Your task to perform on an android device: open app "ColorNote Notepad Notes" (install if not already installed) Image 0: 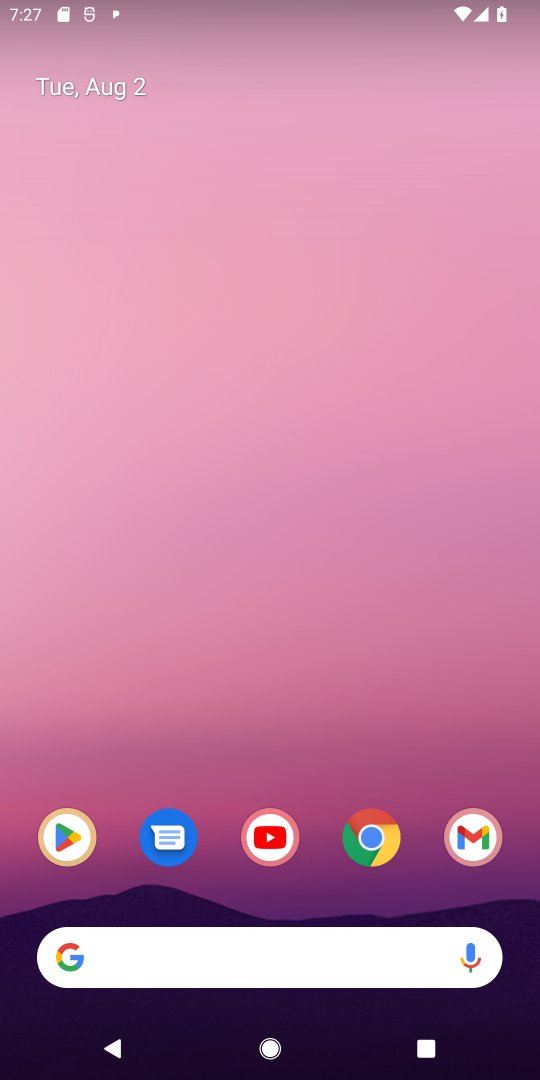
Step 0: click (66, 845)
Your task to perform on an android device: open app "ColorNote Notepad Notes" (install if not already installed) Image 1: 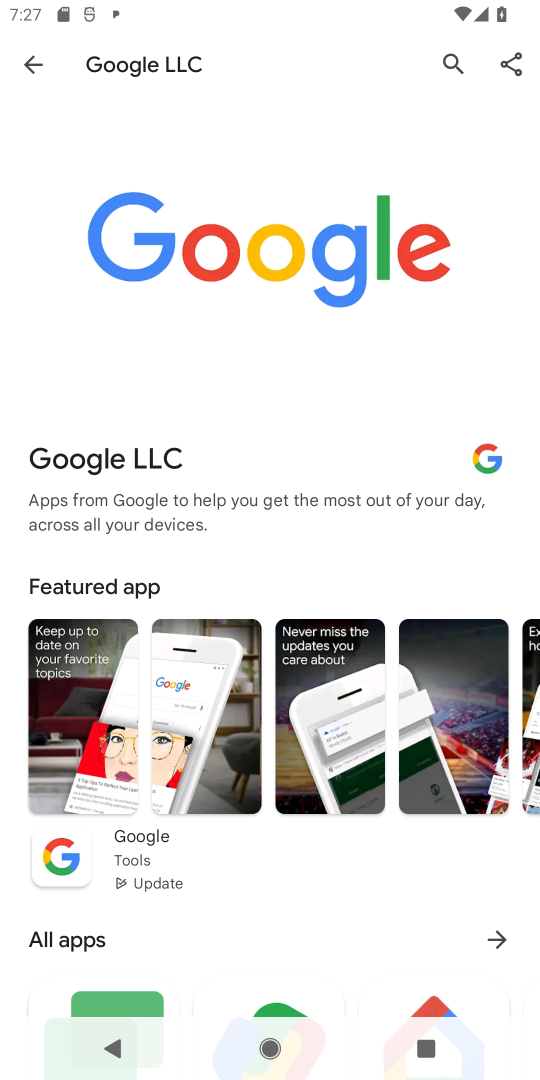
Step 1: click (444, 58)
Your task to perform on an android device: open app "ColorNote Notepad Notes" (install if not already installed) Image 2: 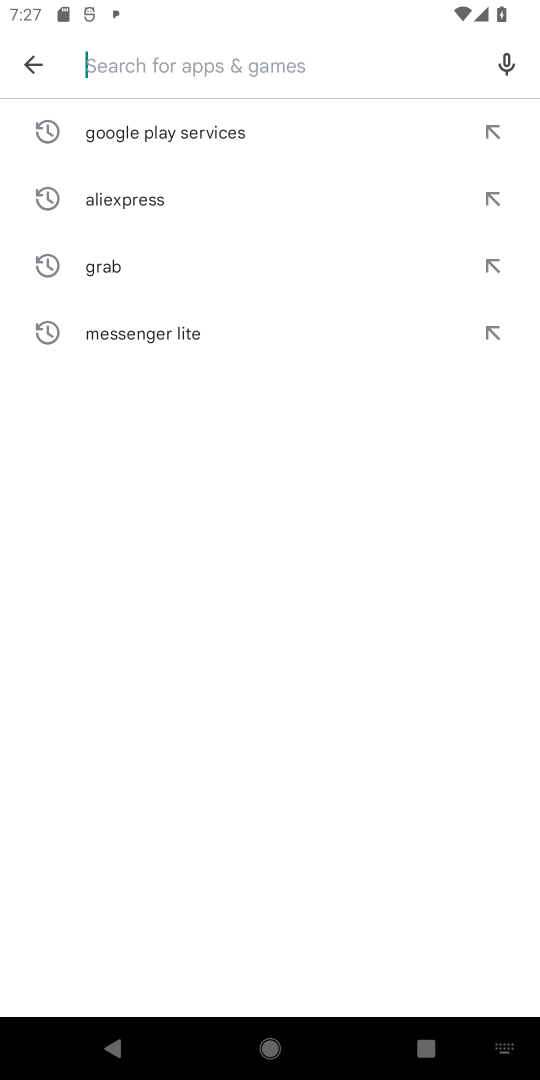
Step 2: type "ColorNote Notepad Notes"
Your task to perform on an android device: open app "ColorNote Notepad Notes" (install if not already installed) Image 3: 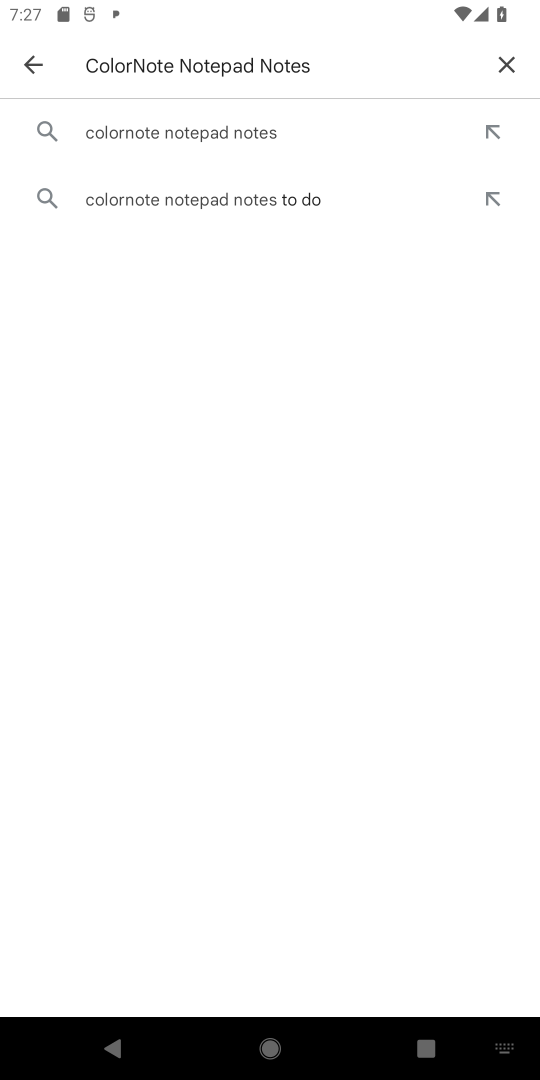
Step 3: click (147, 132)
Your task to perform on an android device: open app "ColorNote Notepad Notes" (install if not already installed) Image 4: 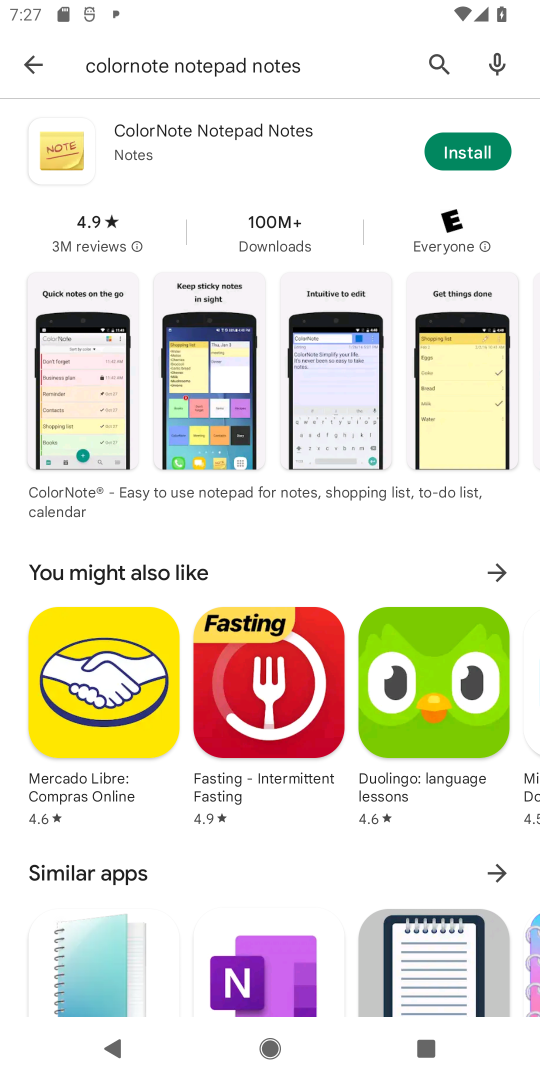
Step 4: click (482, 157)
Your task to perform on an android device: open app "ColorNote Notepad Notes" (install if not already installed) Image 5: 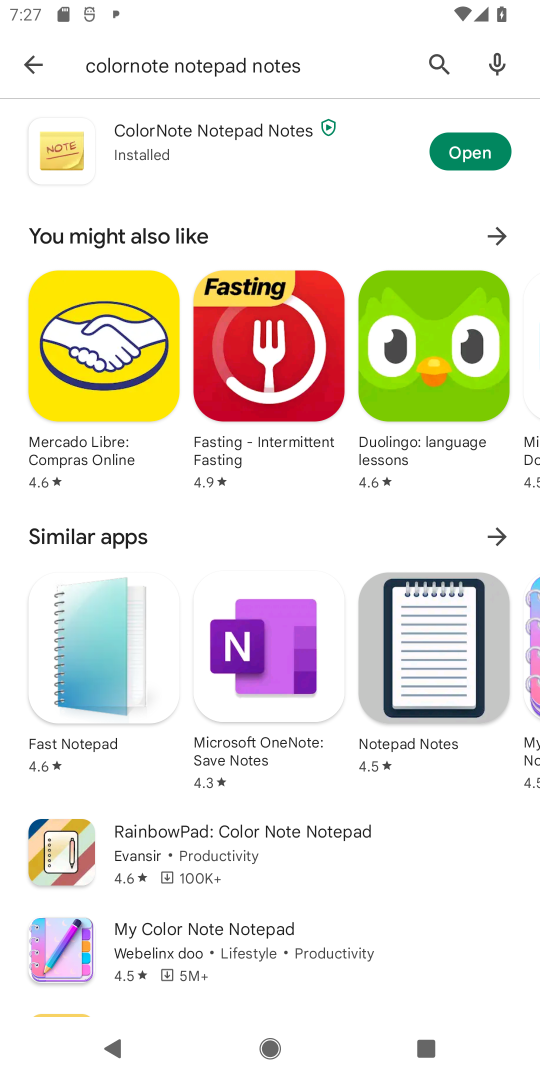
Step 5: click (482, 157)
Your task to perform on an android device: open app "ColorNote Notepad Notes" (install if not already installed) Image 6: 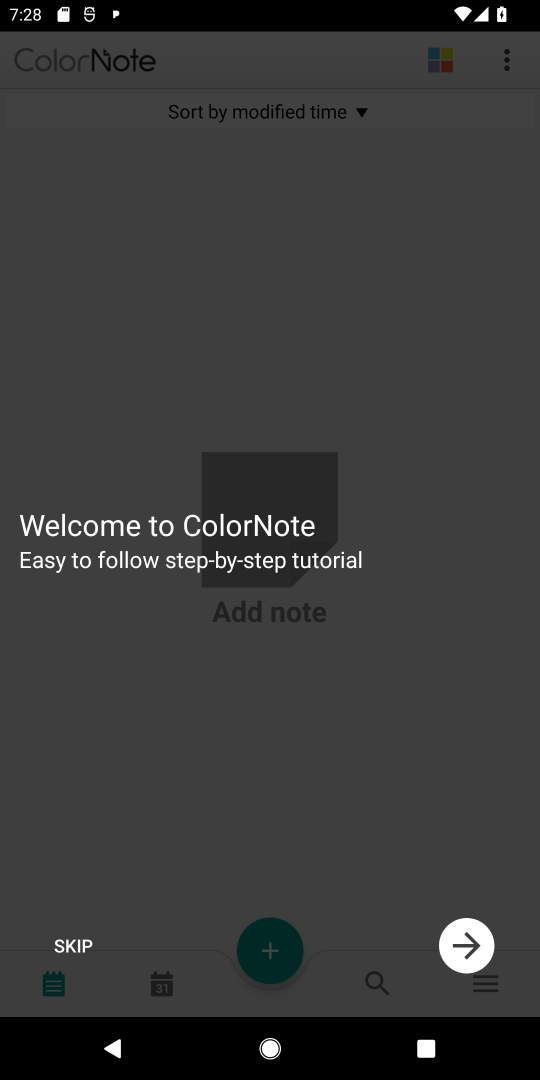
Step 6: task complete